Your task to perform on an android device: toggle notification dots Image 0: 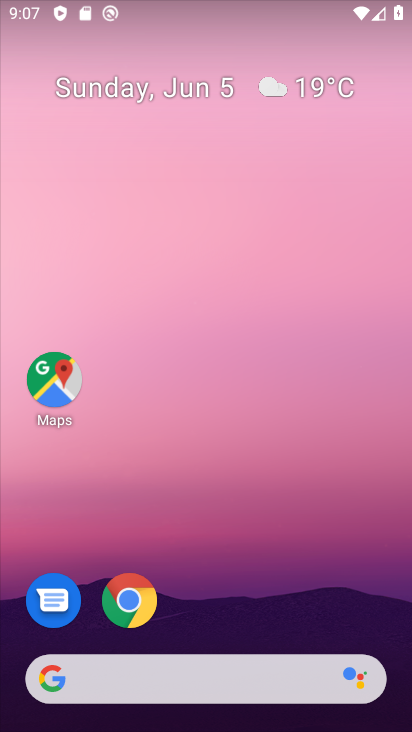
Step 0: task complete